Your task to perform on an android device: turn off airplane mode Image 0: 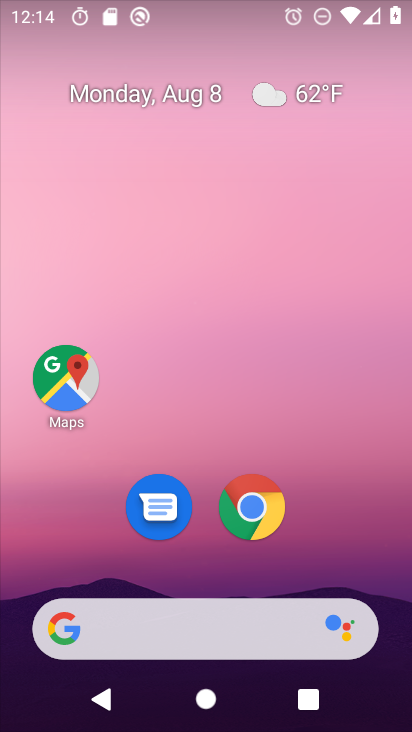
Step 0: drag from (355, 531) to (257, 387)
Your task to perform on an android device: turn off airplane mode Image 1: 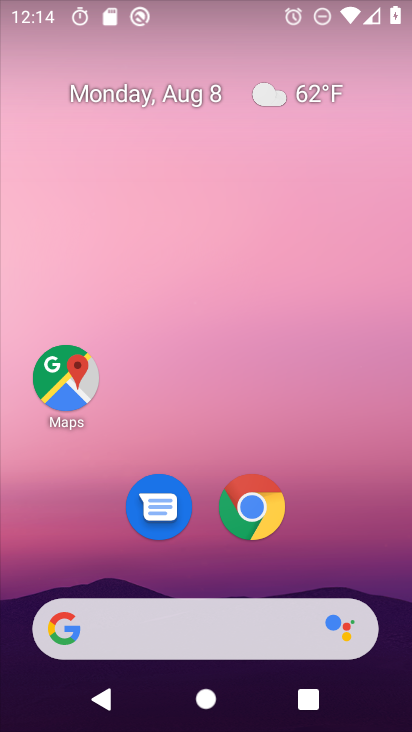
Step 1: drag from (324, 527) to (329, 60)
Your task to perform on an android device: turn off airplane mode Image 2: 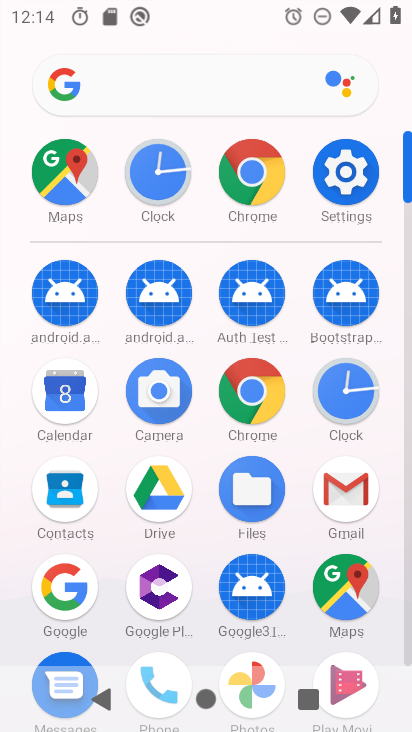
Step 2: drag from (204, 539) to (223, 150)
Your task to perform on an android device: turn off airplane mode Image 3: 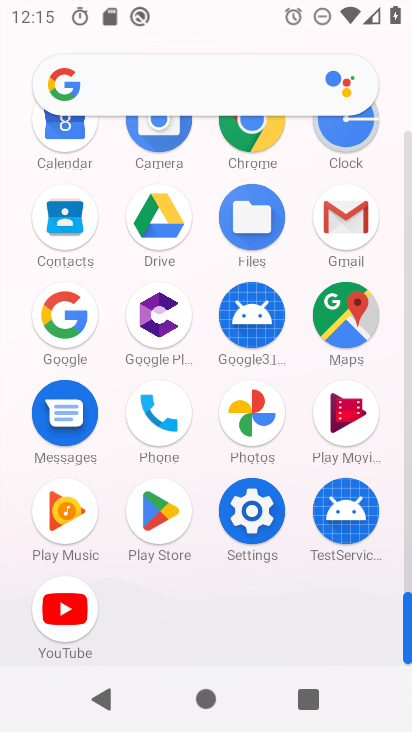
Step 3: click (246, 526)
Your task to perform on an android device: turn off airplane mode Image 4: 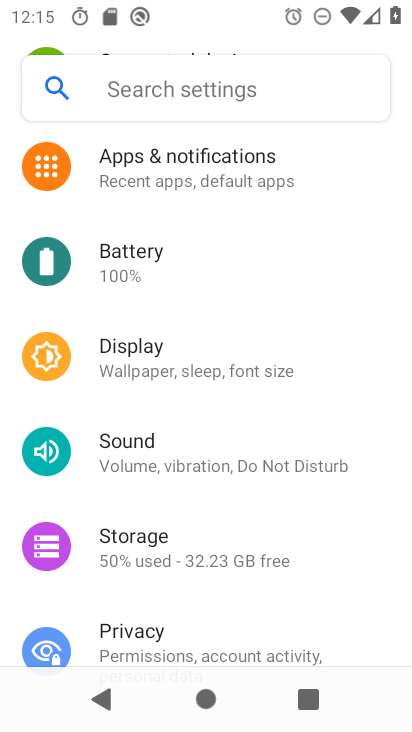
Step 4: drag from (217, 204) to (234, 562)
Your task to perform on an android device: turn off airplane mode Image 5: 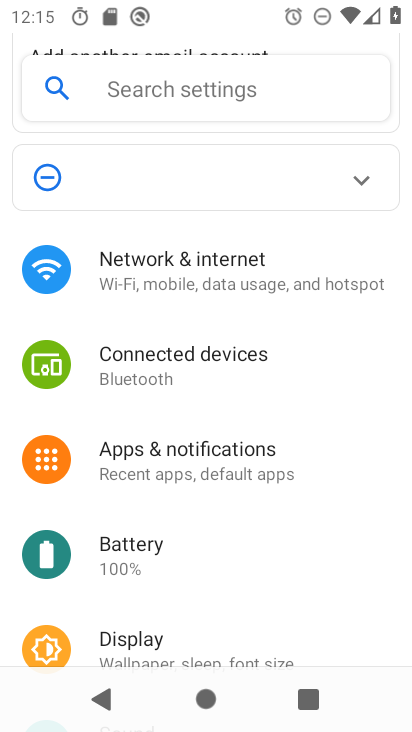
Step 5: click (196, 268)
Your task to perform on an android device: turn off airplane mode Image 6: 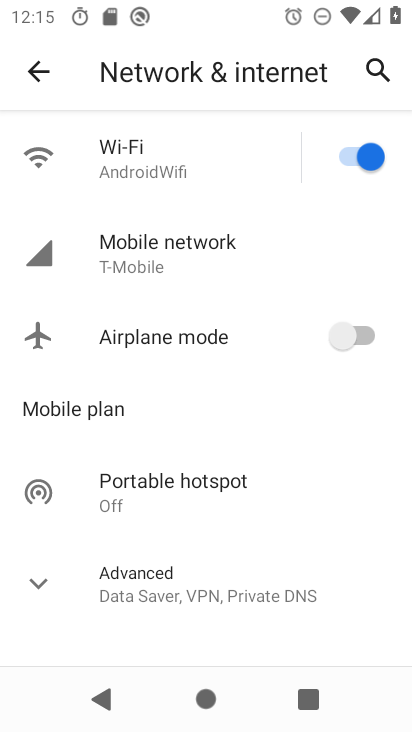
Step 6: task complete